Your task to perform on an android device: toggle sleep mode Image 0: 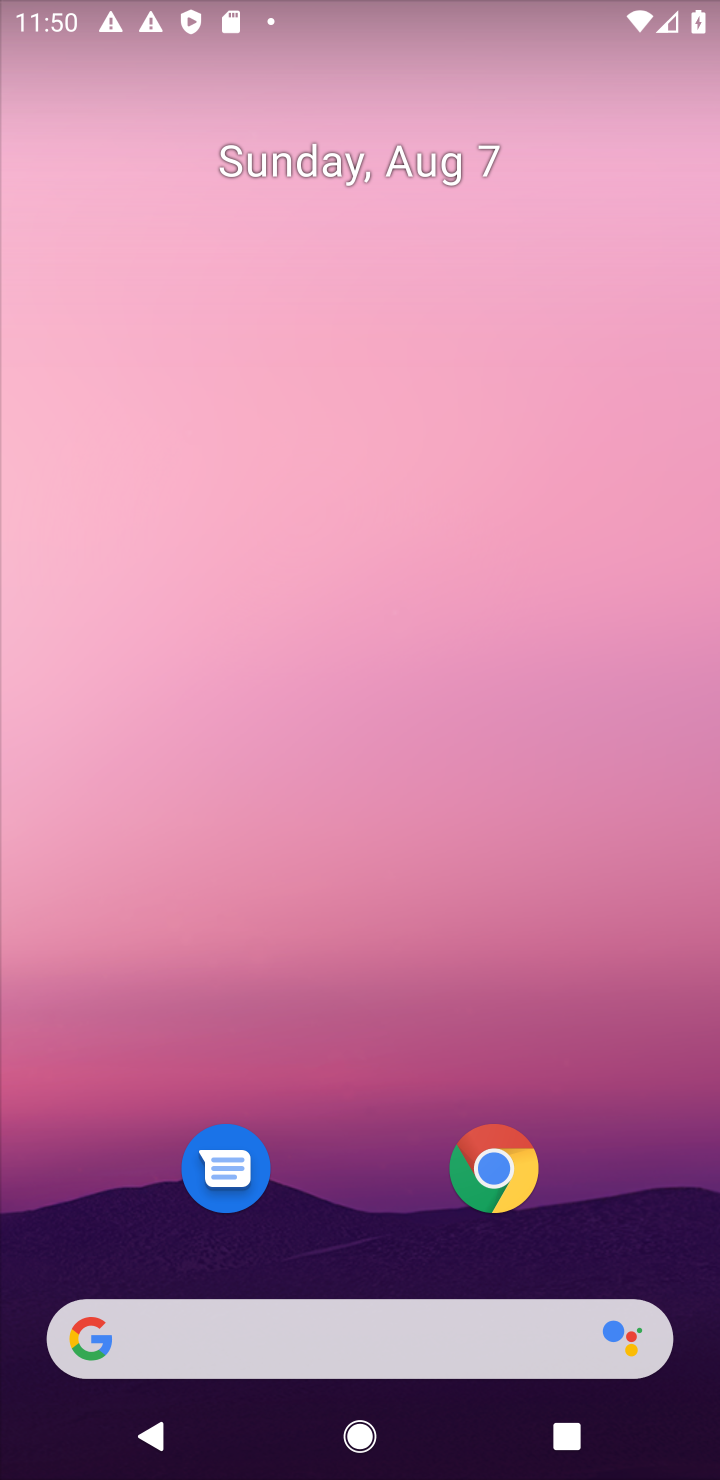
Step 0: drag from (363, 1242) to (314, 19)
Your task to perform on an android device: toggle sleep mode Image 1: 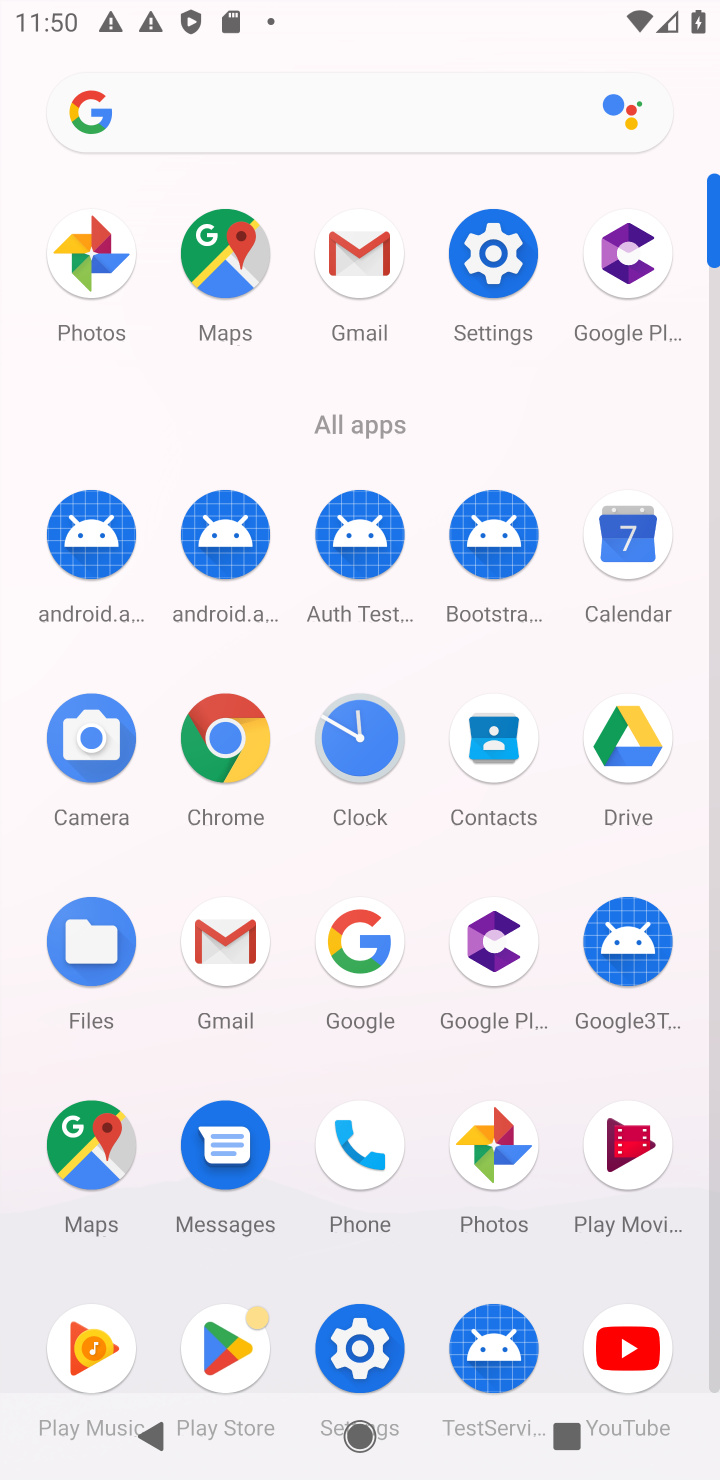
Step 1: click (464, 299)
Your task to perform on an android device: toggle sleep mode Image 2: 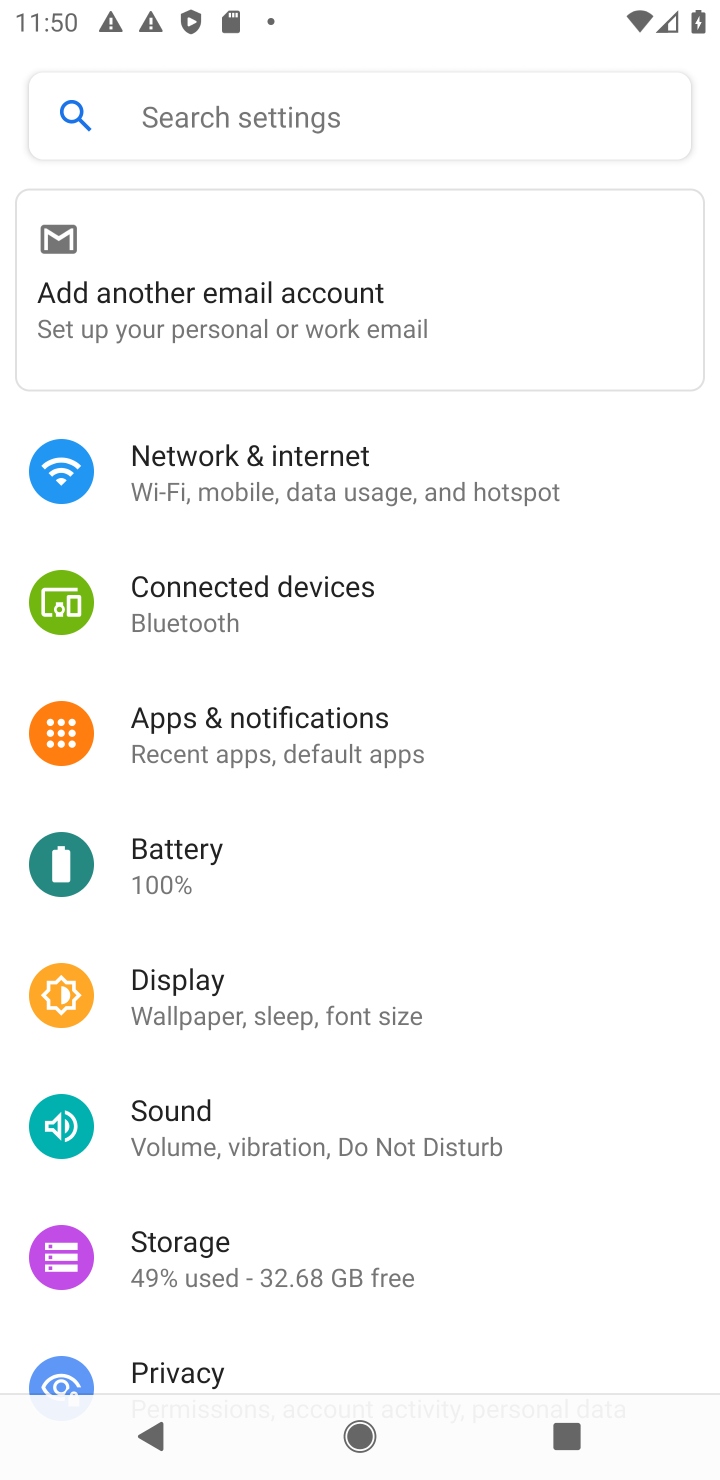
Step 2: task complete